Your task to perform on an android device: Go to Amazon Image 0: 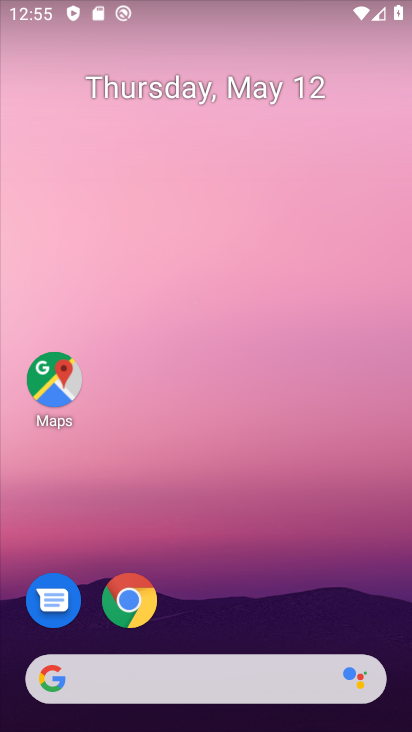
Step 0: drag from (191, 614) to (248, 177)
Your task to perform on an android device: Go to Amazon Image 1: 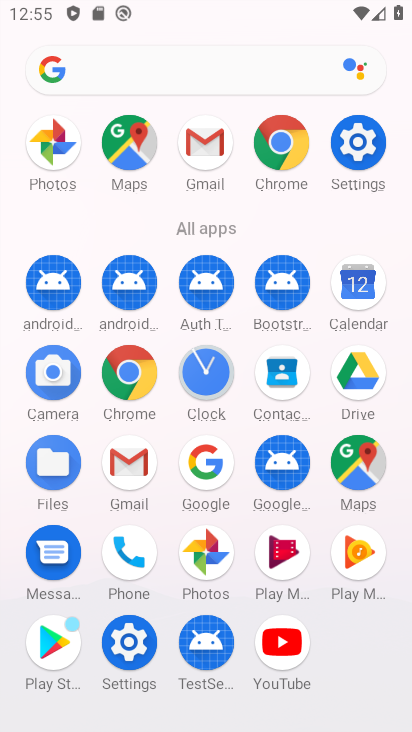
Step 1: click (136, 369)
Your task to perform on an android device: Go to Amazon Image 2: 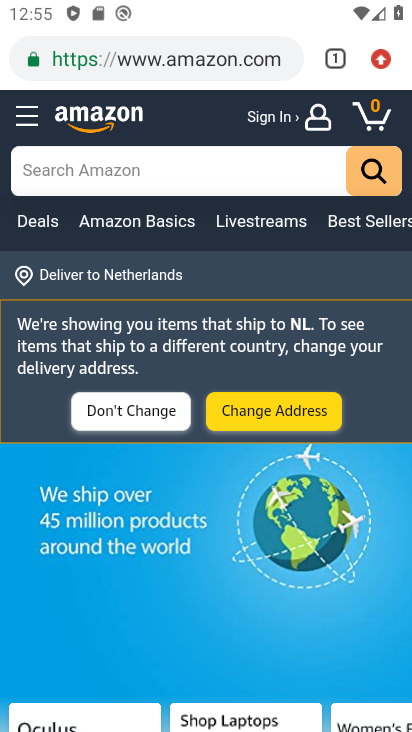
Step 2: task complete